Your task to perform on an android device: change the clock display to digital Image 0: 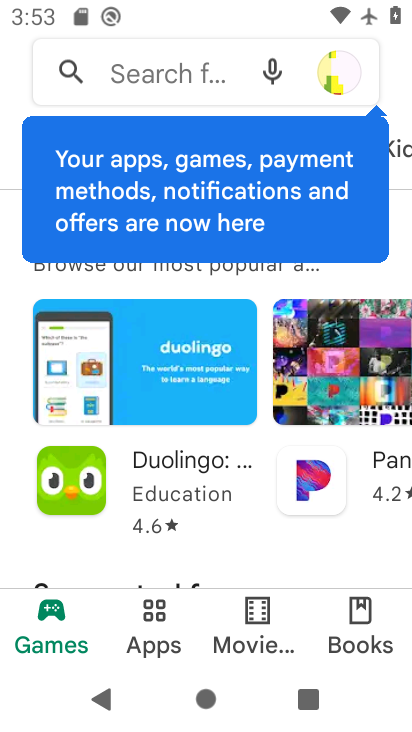
Step 0: press home button
Your task to perform on an android device: change the clock display to digital Image 1: 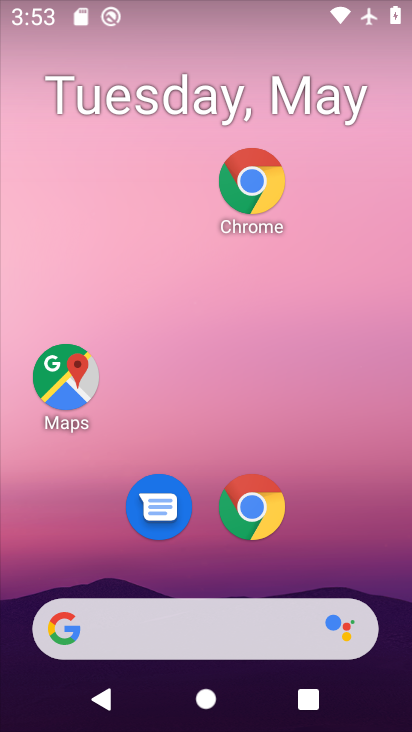
Step 1: drag from (326, 531) to (379, 23)
Your task to perform on an android device: change the clock display to digital Image 2: 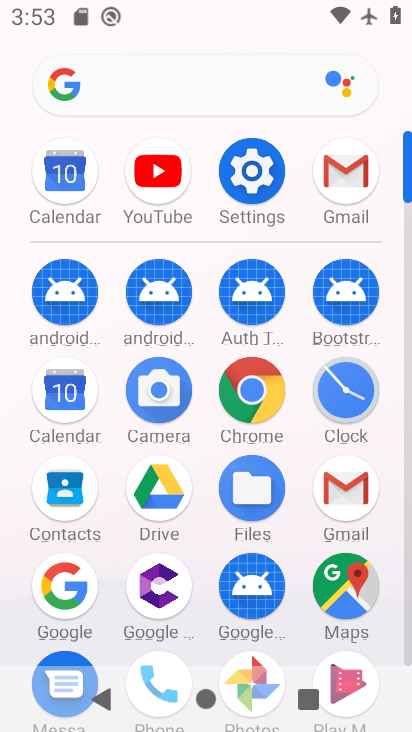
Step 2: click (334, 401)
Your task to perform on an android device: change the clock display to digital Image 3: 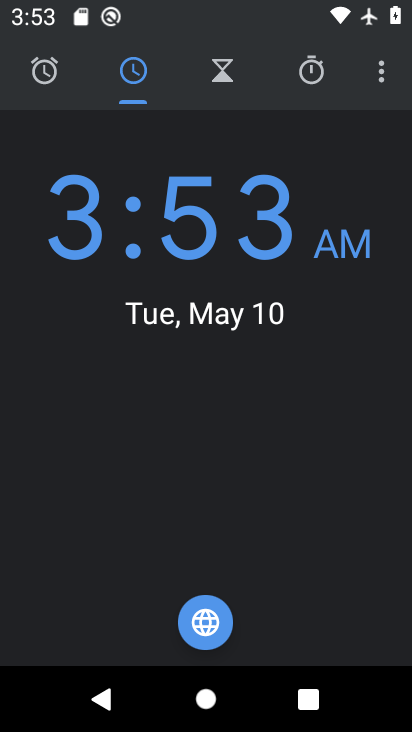
Step 3: click (377, 61)
Your task to perform on an android device: change the clock display to digital Image 4: 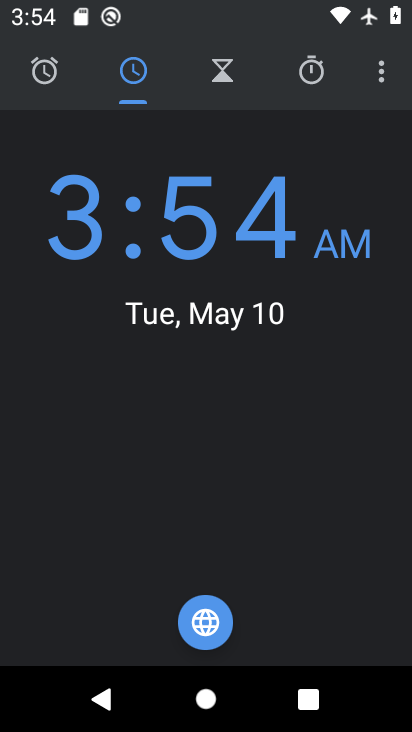
Step 4: click (388, 68)
Your task to perform on an android device: change the clock display to digital Image 5: 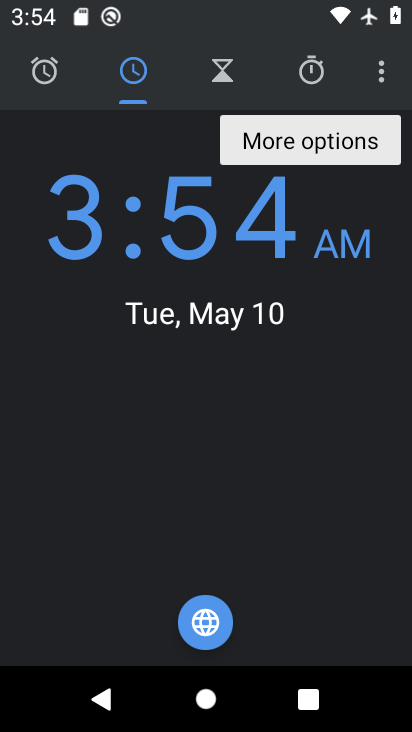
Step 5: click (378, 86)
Your task to perform on an android device: change the clock display to digital Image 6: 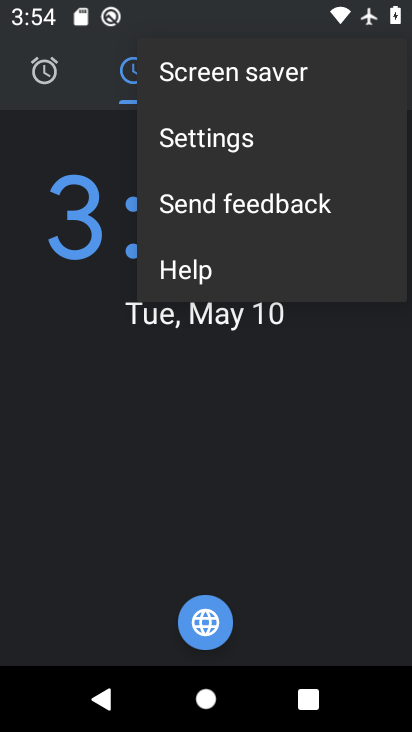
Step 6: click (191, 146)
Your task to perform on an android device: change the clock display to digital Image 7: 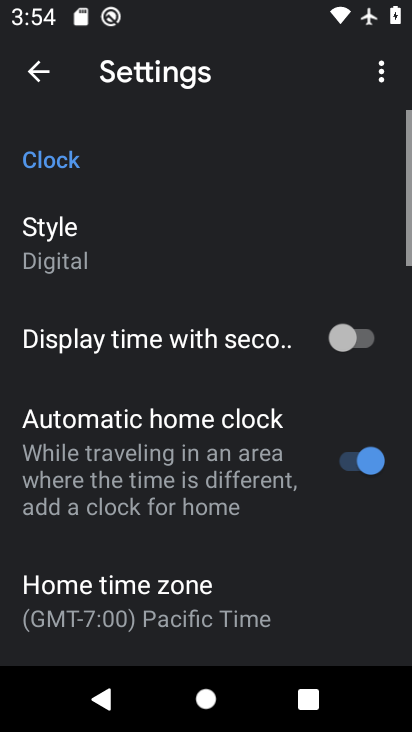
Step 7: click (68, 250)
Your task to perform on an android device: change the clock display to digital Image 8: 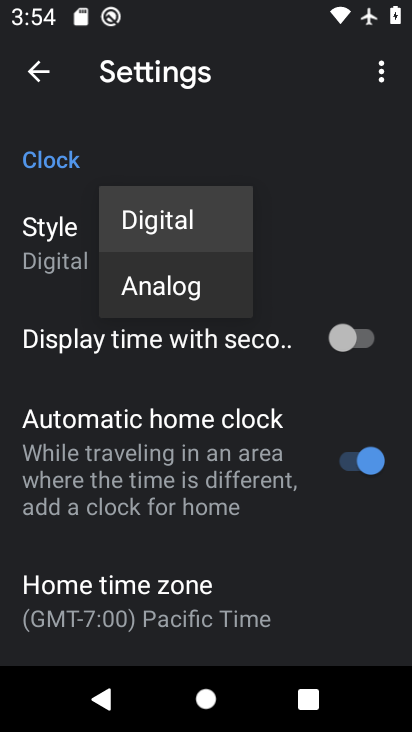
Step 8: task complete